Your task to perform on an android device: turn on airplane mode Image 0: 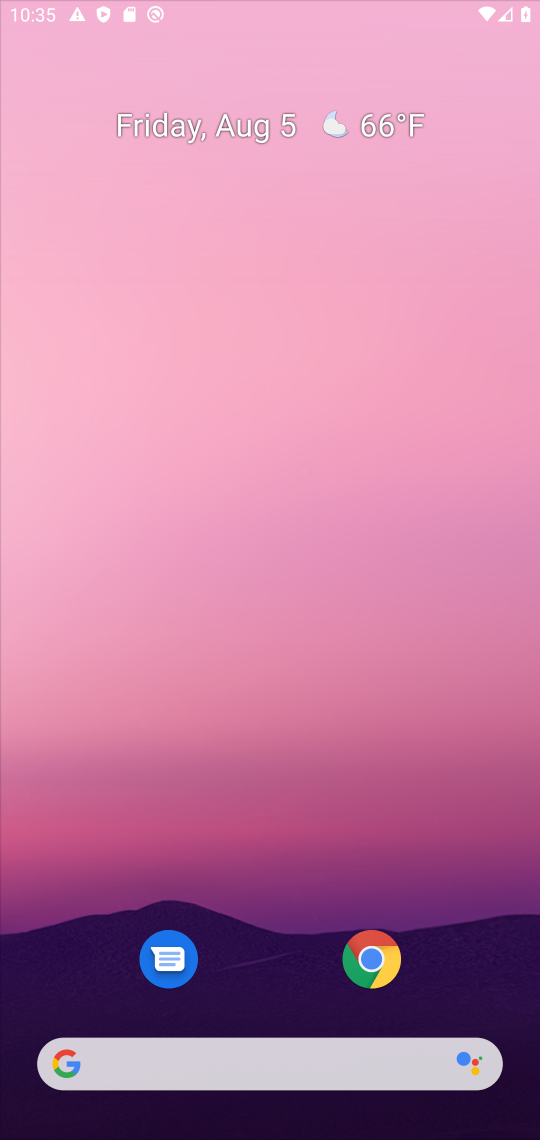
Step 0: click (289, 115)
Your task to perform on an android device: turn on airplane mode Image 1: 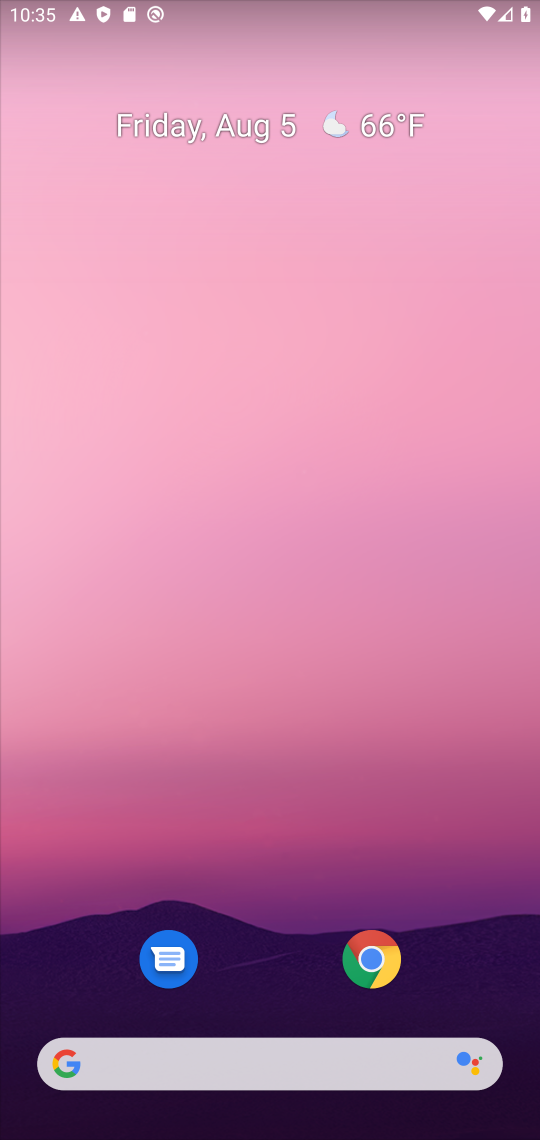
Step 1: drag from (218, 26) to (202, 927)
Your task to perform on an android device: turn on airplane mode Image 2: 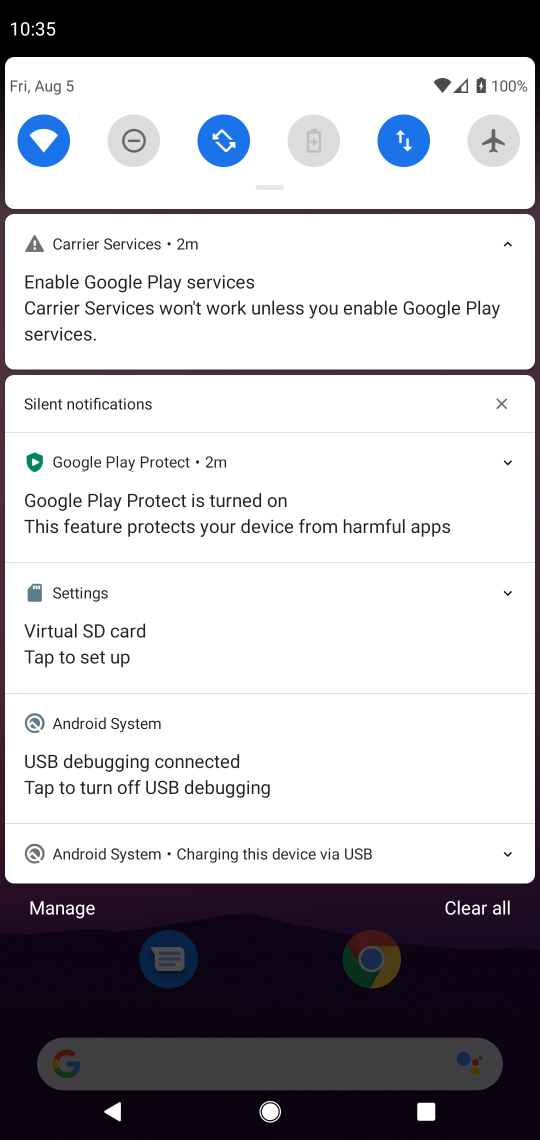
Step 2: click (486, 147)
Your task to perform on an android device: turn on airplane mode Image 3: 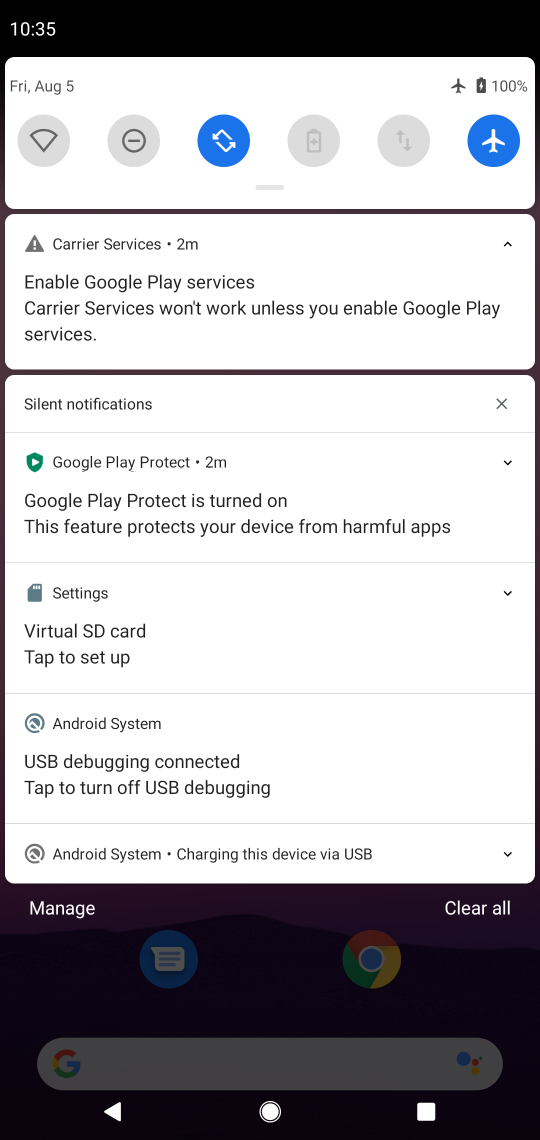
Step 3: task complete